Your task to perform on an android device: turn notification dots on Image 0: 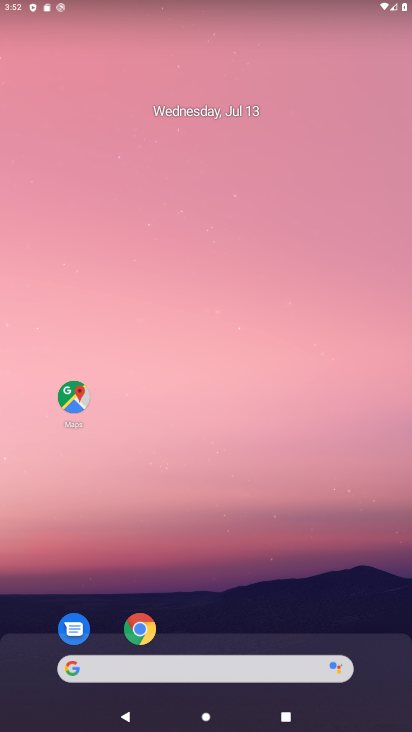
Step 0: drag from (160, 674) to (274, 17)
Your task to perform on an android device: turn notification dots on Image 1: 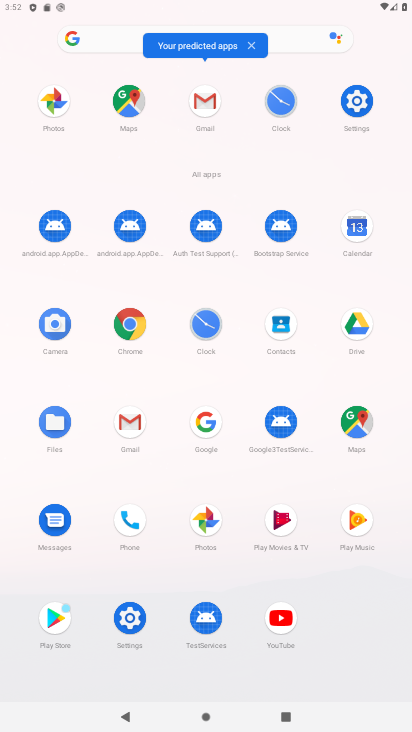
Step 1: click (140, 633)
Your task to perform on an android device: turn notification dots on Image 2: 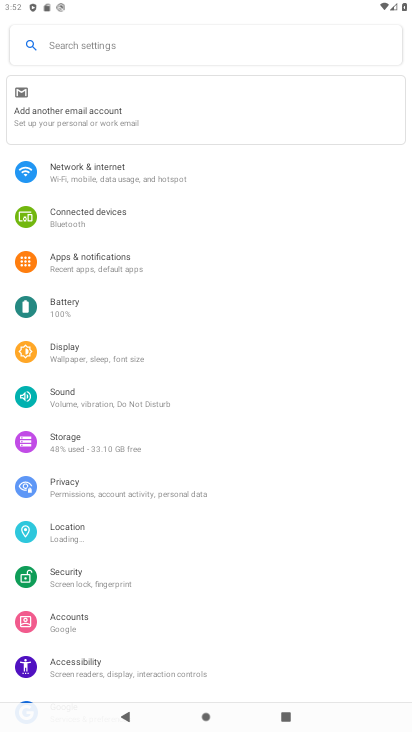
Step 2: click (106, 272)
Your task to perform on an android device: turn notification dots on Image 3: 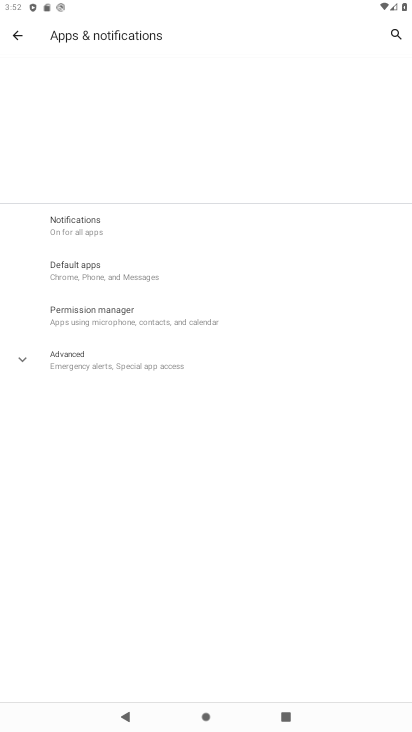
Step 3: click (115, 239)
Your task to perform on an android device: turn notification dots on Image 4: 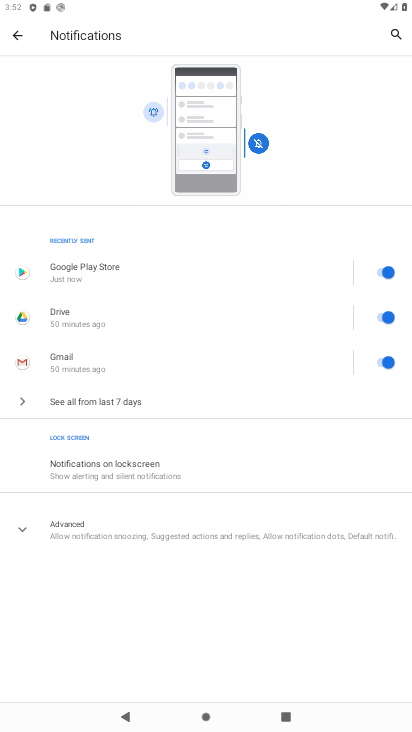
Step 4: click (177, 533)
Your task to perform on an android device: turn notification dots on Image 5: 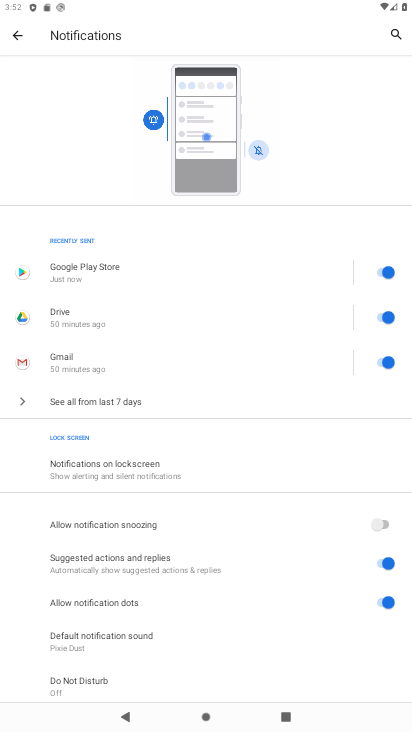
Step 5: task complete